Your task to perform on an android device: see tabs open on other devices in the chrome app Image 0: 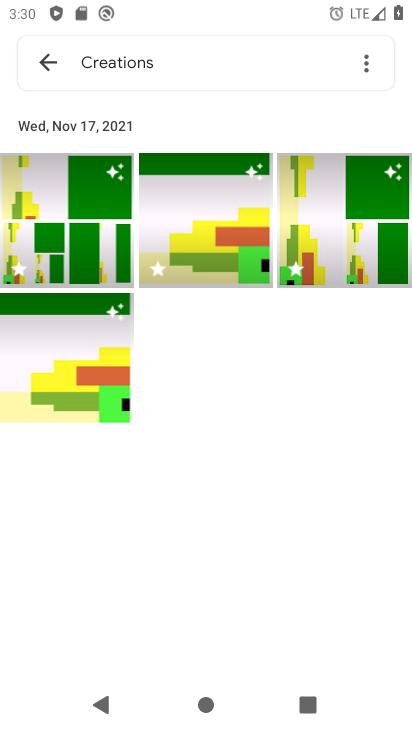
Step 0: press home button
Your task to perform on an android device: see tabs open on other devices in the chrome app Image 1: 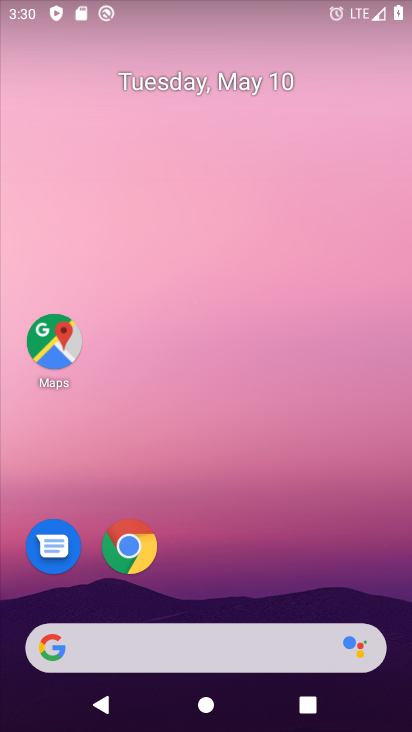
Step 1: click (141, 537)
Your task to perform on an android device: see tabs open on other devices in the chrome app Image 2: 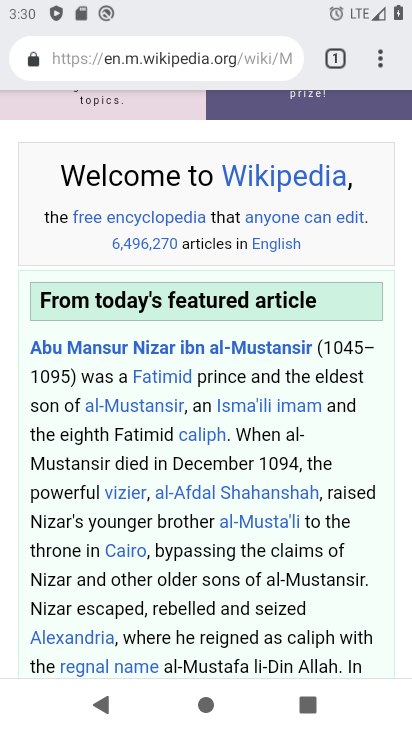
Step 2: click (380, 74)
Your task to perform on an android device: see tabs open on other devices in the chrome app Image 3: 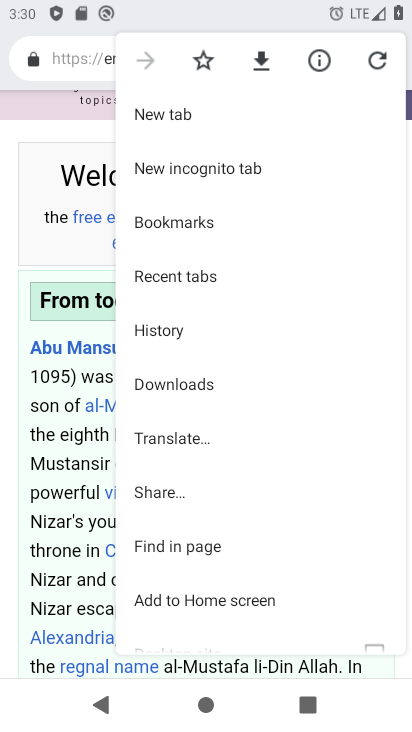
Step 3: click (194, 278)
Your task to perform on an android device: see tabs open on other devices in the chrome app Image 4: 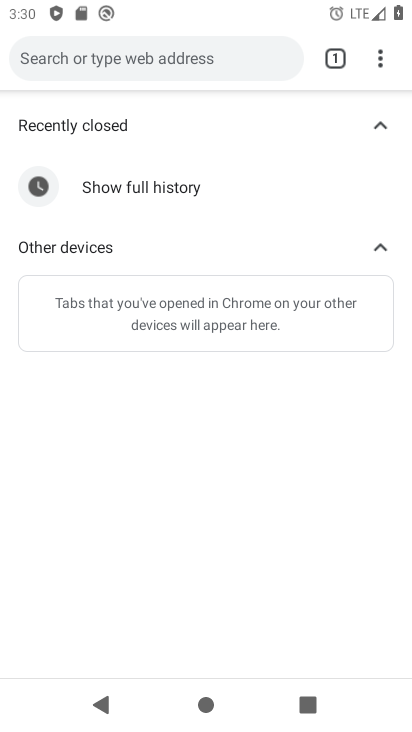
Step 4: task complete